Your task to perform on an android device: add a contact Image 0: 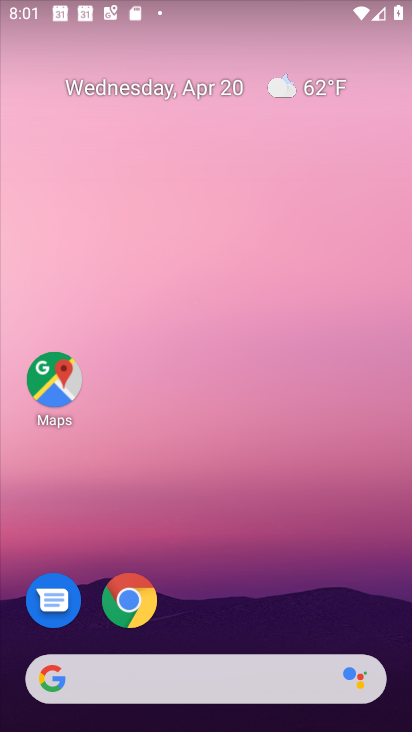
Step 0: drag from (275, 582) to (282, 14)
Your task to perform on an android device: add a contact Image 1: 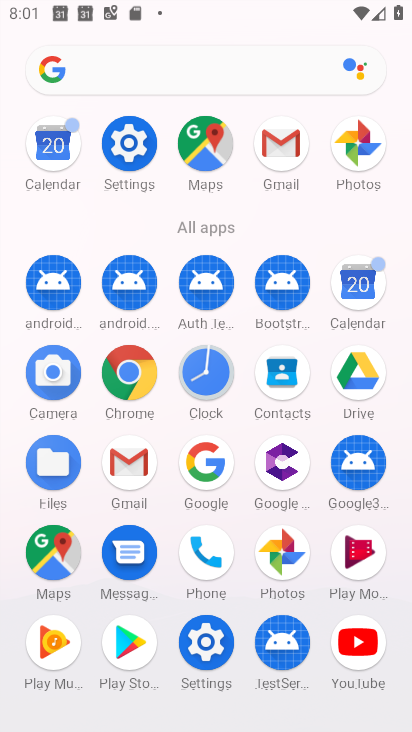
Step 1: click (277, 378)
Your task to perform on an android device: add a contact Image 2: 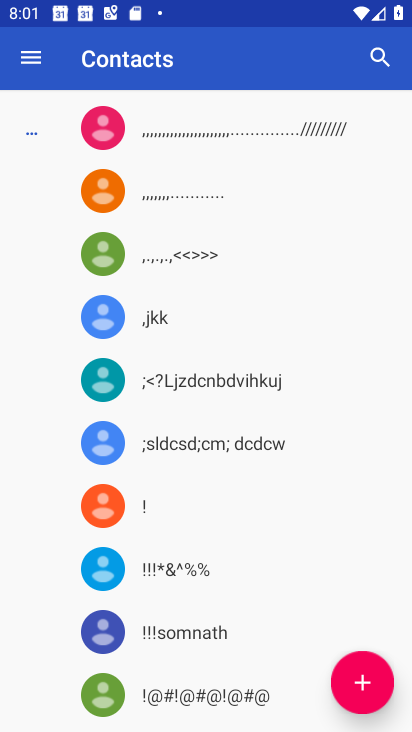
Step 2: click (359, 673)
Your task to perform on an android device: add a contact Image 3: 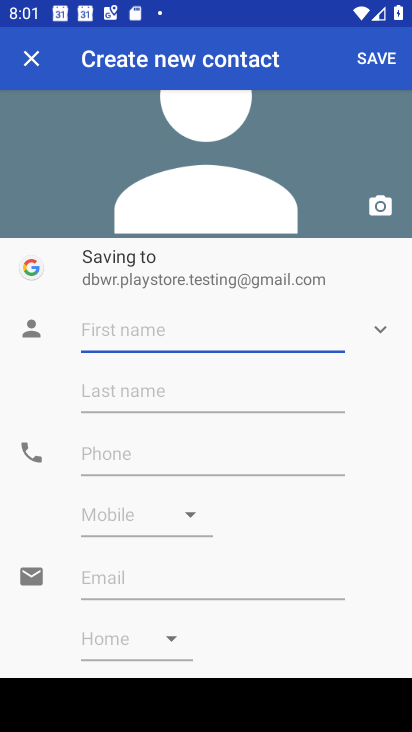
Step 3: type "fdf"
Your task to perform on an android device: add a contact Image 4: 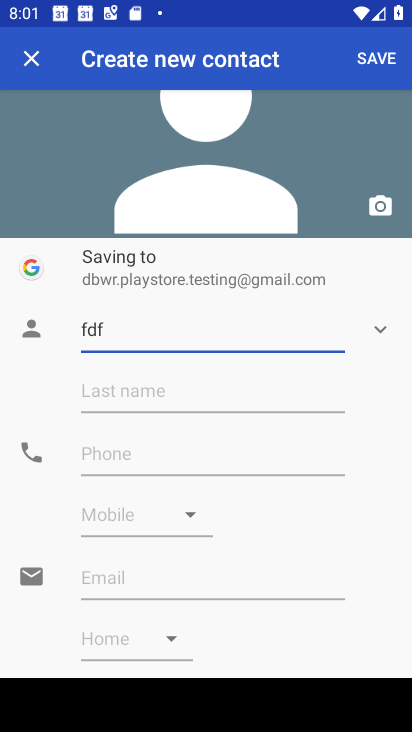
Step 4: click (254, 386)
Your task to perform on an android device: add a contact Image 5: 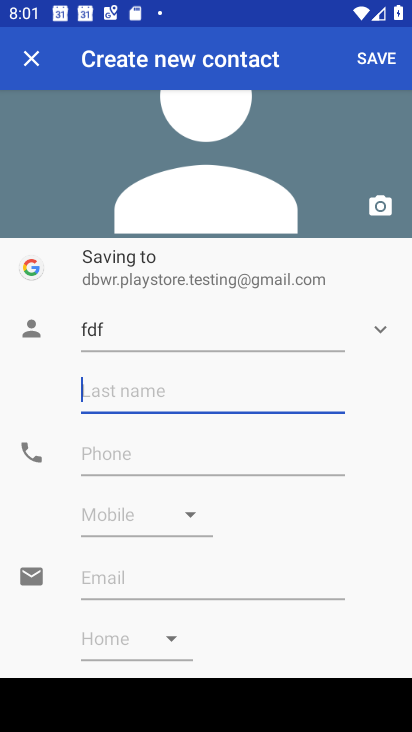
Step 5: type "hhgg"
Your task to perform on an android device: add a contact Image 6: 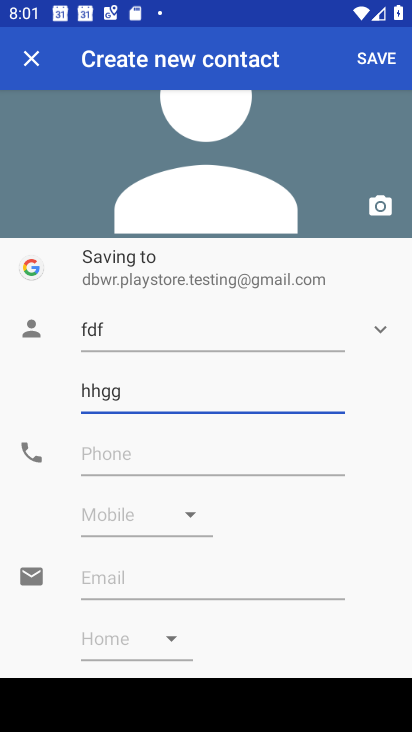
Step 6: click (242, 397)
Your task to perform on an android device: add a contact Image 7: 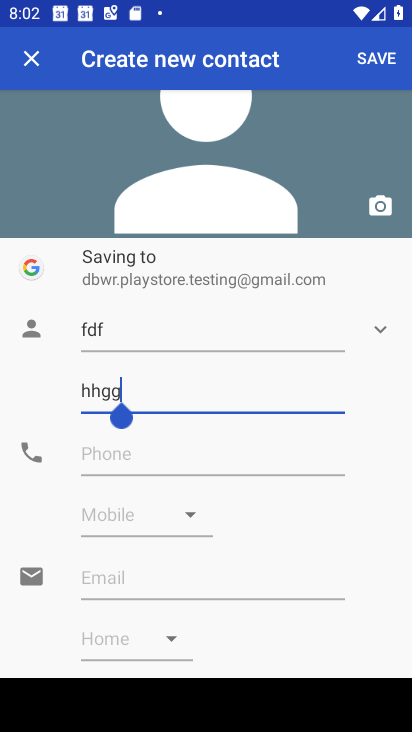
Step 7: click (279, 458)
Your task to perform on an android device: add a contact Image 8: 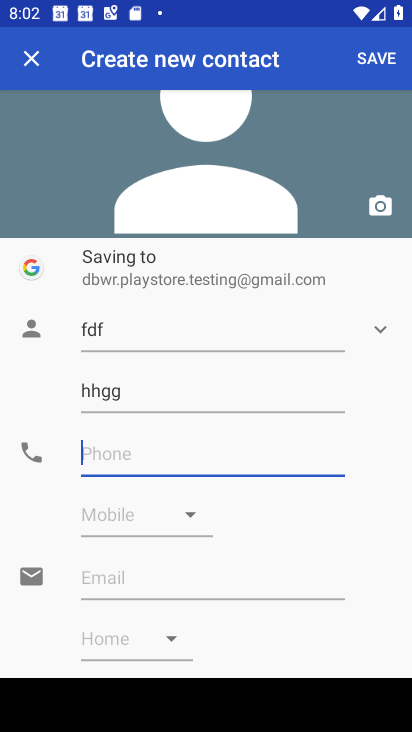
Step 8: type "454645645"
Your task to perform on an android device: add a contact Image 9: 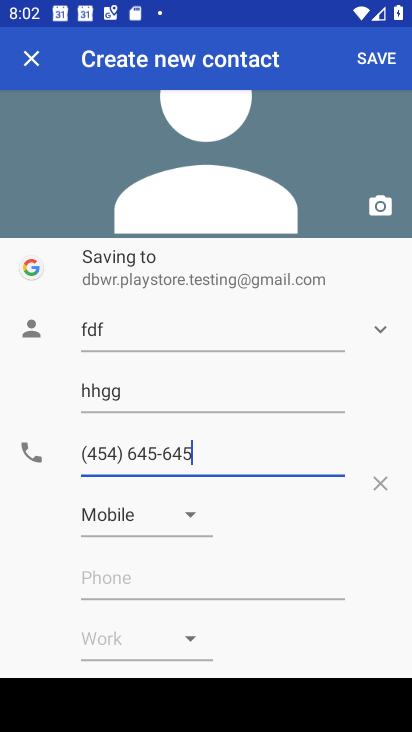
Step 9: click (377, 56)
Your task to perform on an android device: add a contact Image 10: 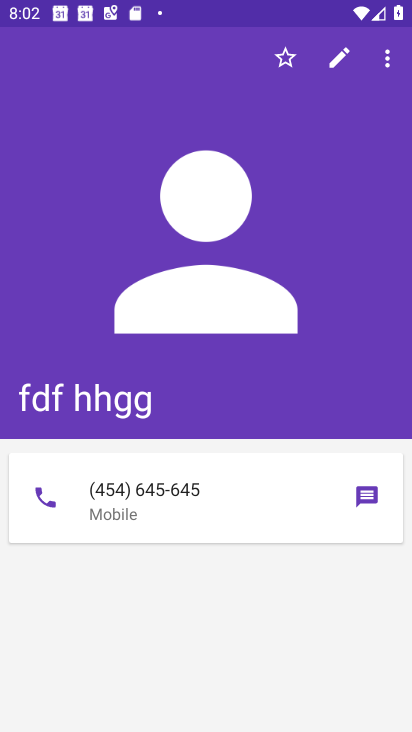
Step 10: task complete